Your task to perform on an android device: install app "HBO Max: Stream TV & Movies" Image 0: 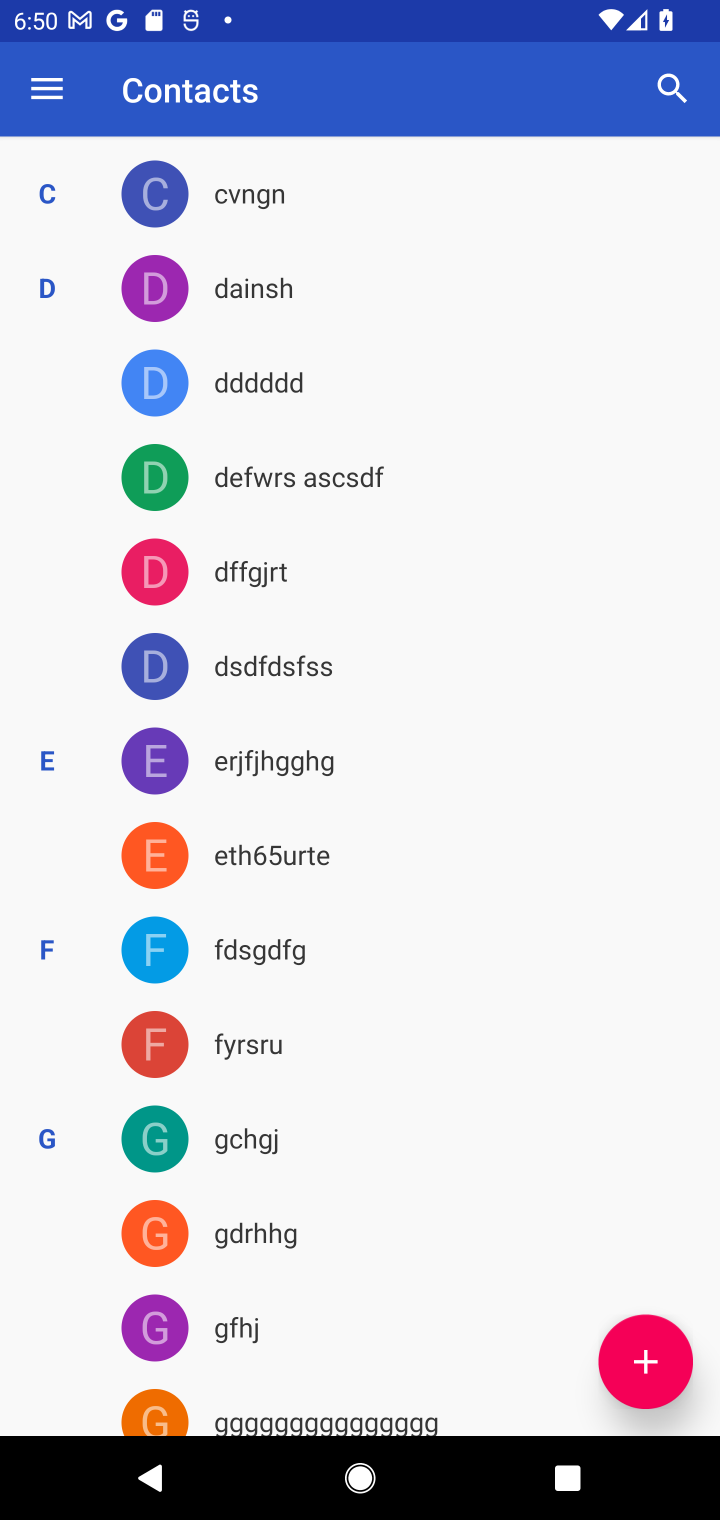
Step 0: press home button
Your task to perform on an android device: install app "HBO Max: Stream TV & Movies" Image 1: 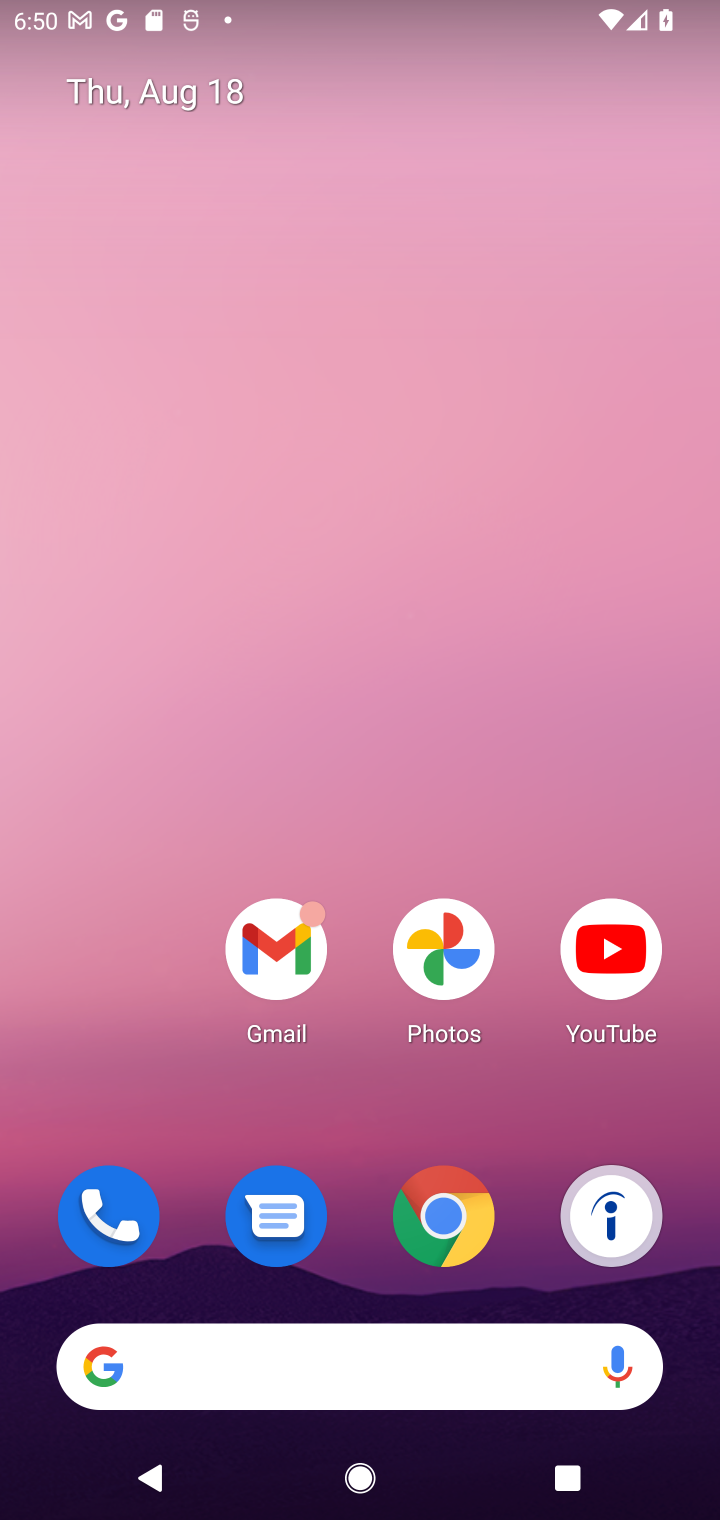
Step 1: drag from (534, 1290) to (472, 381)
Your task to perform on an android device: install app "HBO Max: Stream TV & Movies" Image 2: 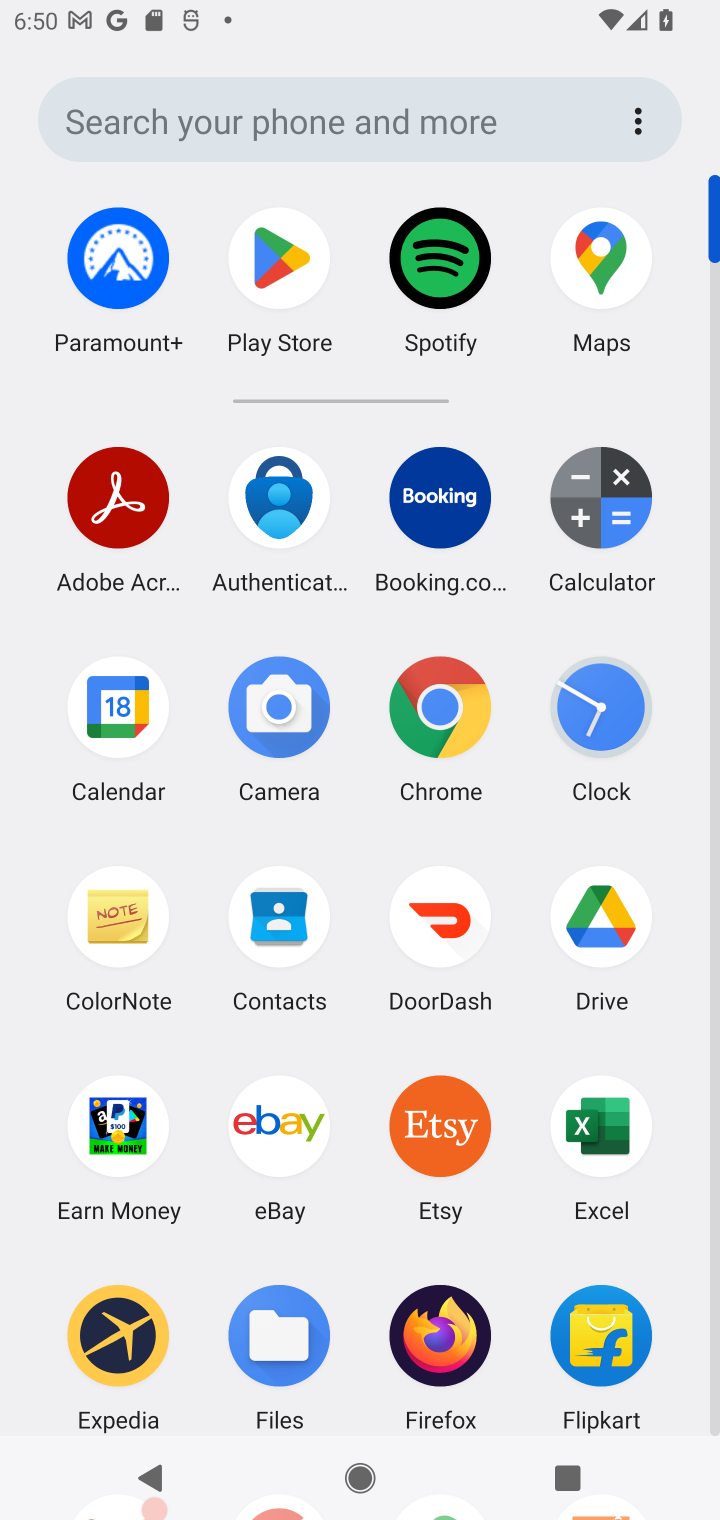
Step 2: drag from (526, 1263) to (530, 522)
Your task to perform on an android device: install app "HBO Max: Stream TV & Movies" Image 3: 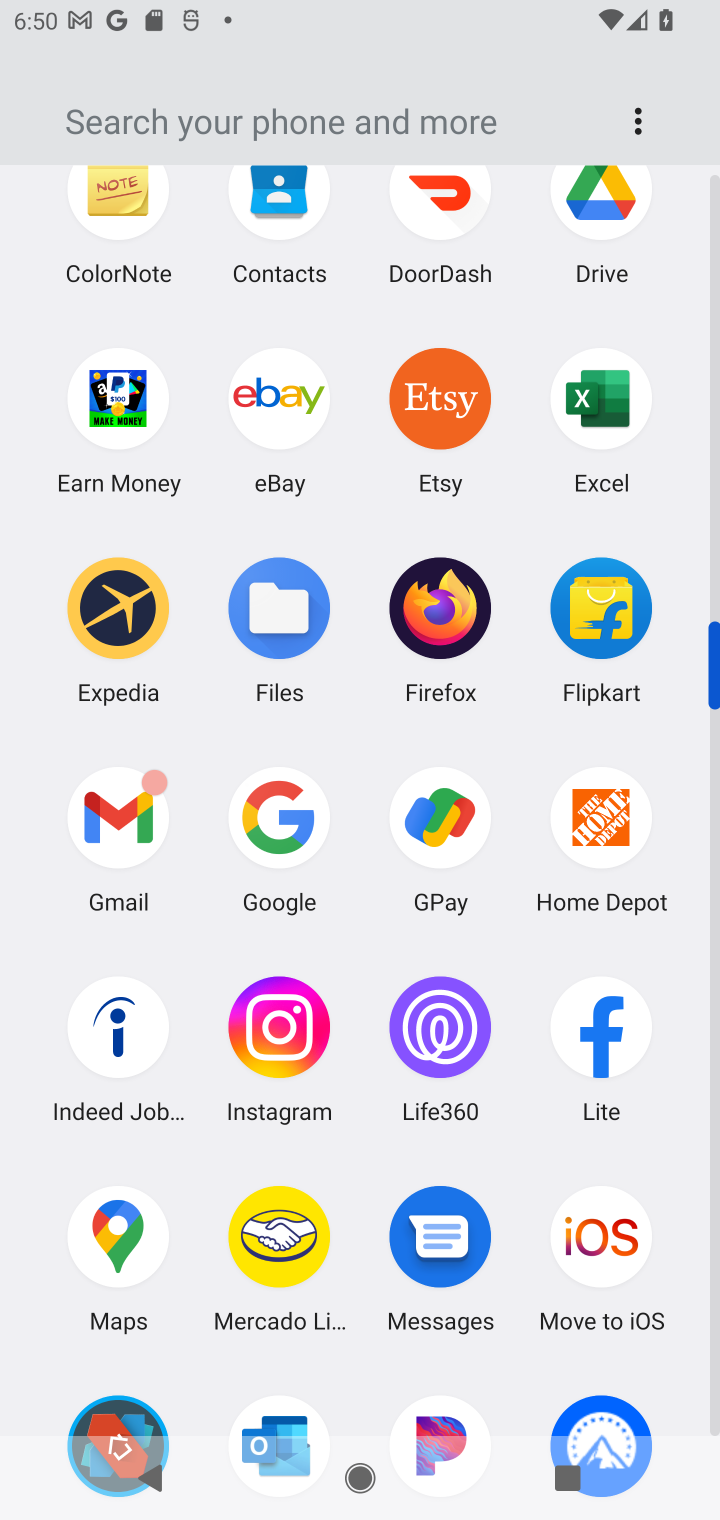
Step 3: drag from (516, 1387) to (520, 728)
Your task to perform on an android device: install app "HBO Max: Stream TV & Movies" Image 4: 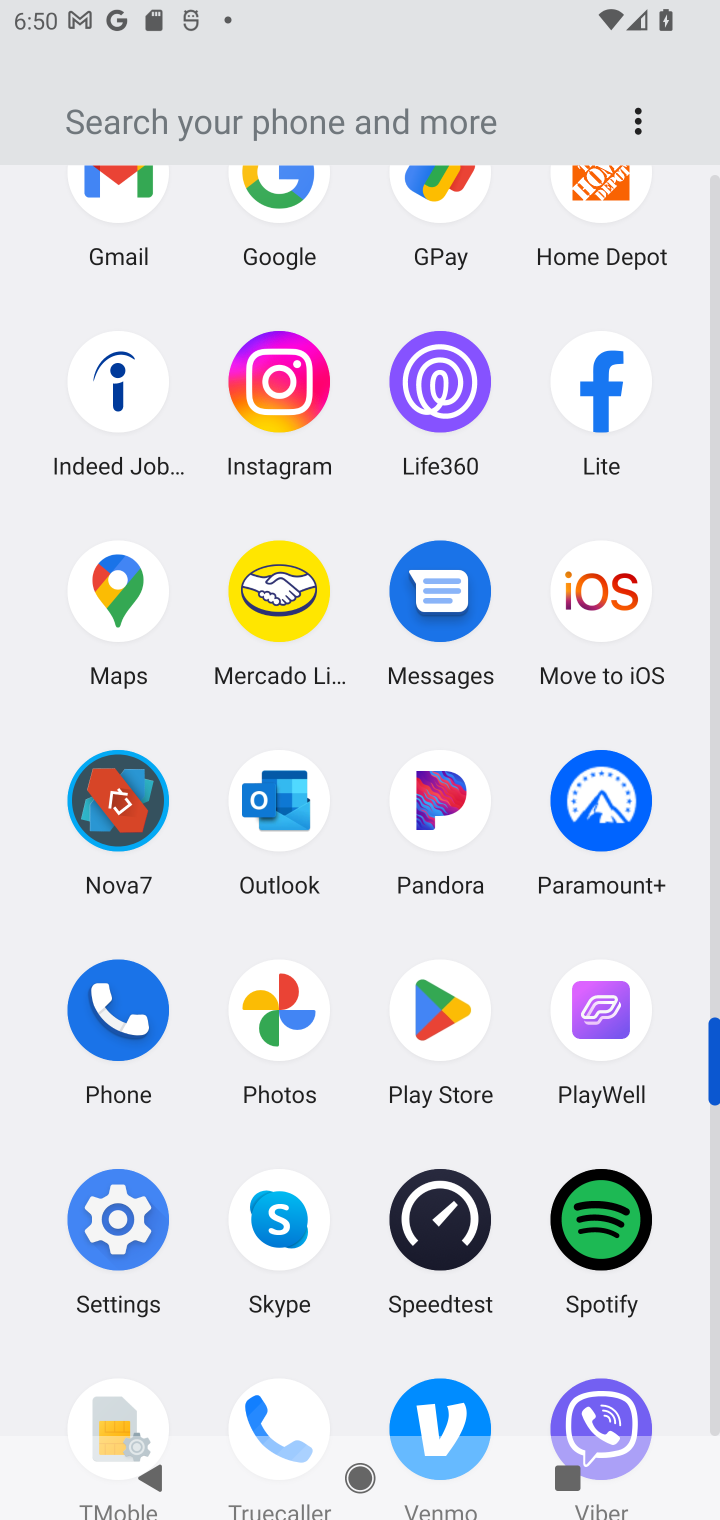
Step 4: click (436, 1009)
Your task to perform on an android device: install app "HBO Max: Stream TV & Movies" Image 5: 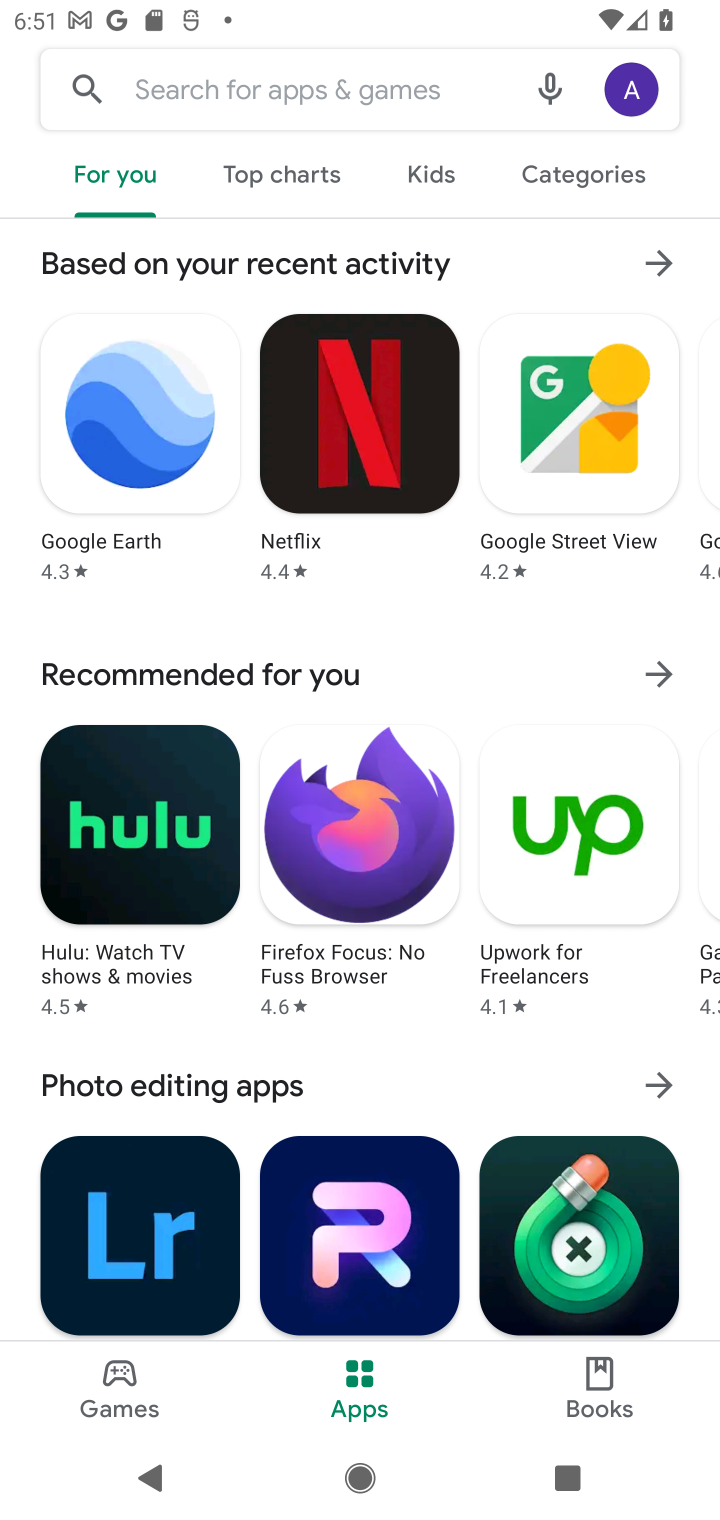
Step 5: click (267, 87)
Your task to perform on an android device: install app "HBO Max: Stream TV & Movies" Image 6: 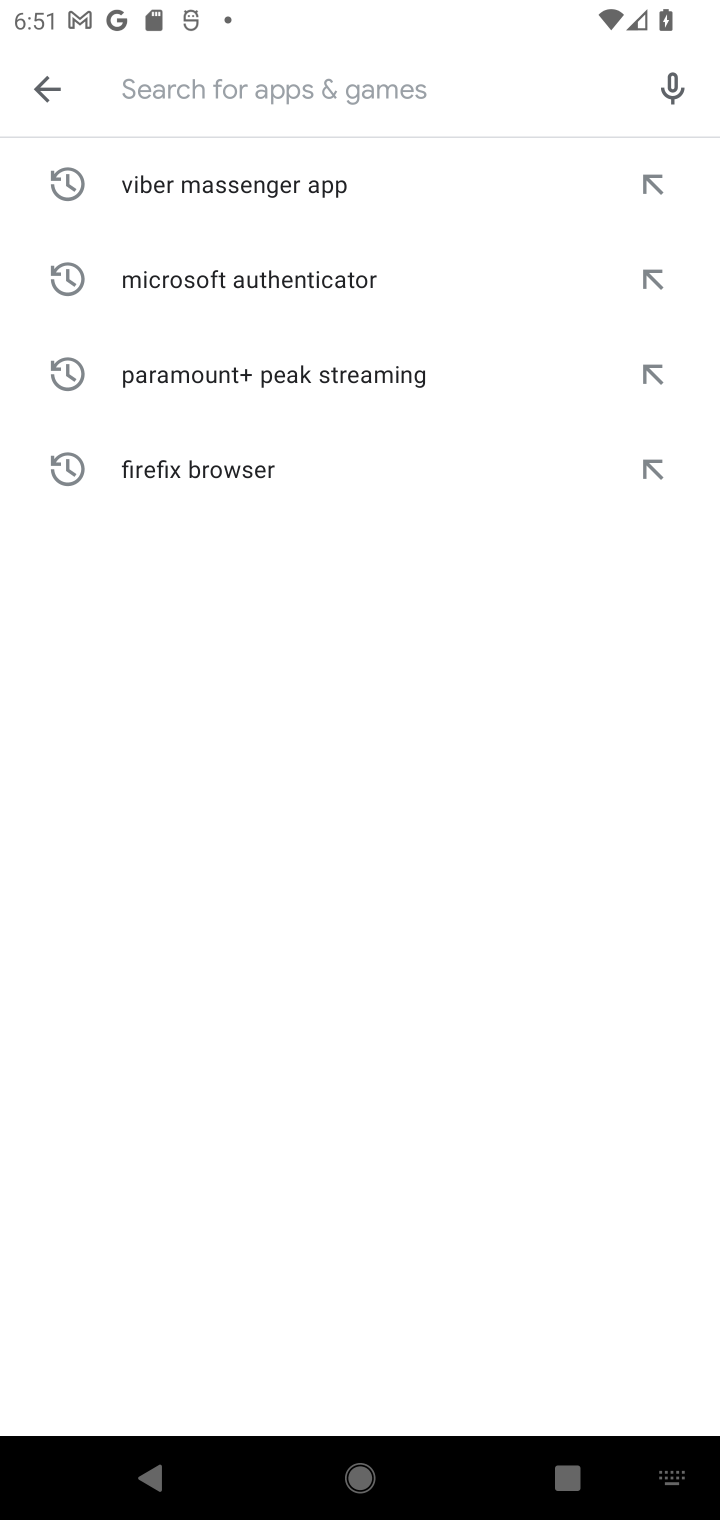
Step 6: type "HBO Max: Stream TV & Movies"
Your task to perform on an android device: install app "HBO Max: Stream TV & Movies" Image 7: 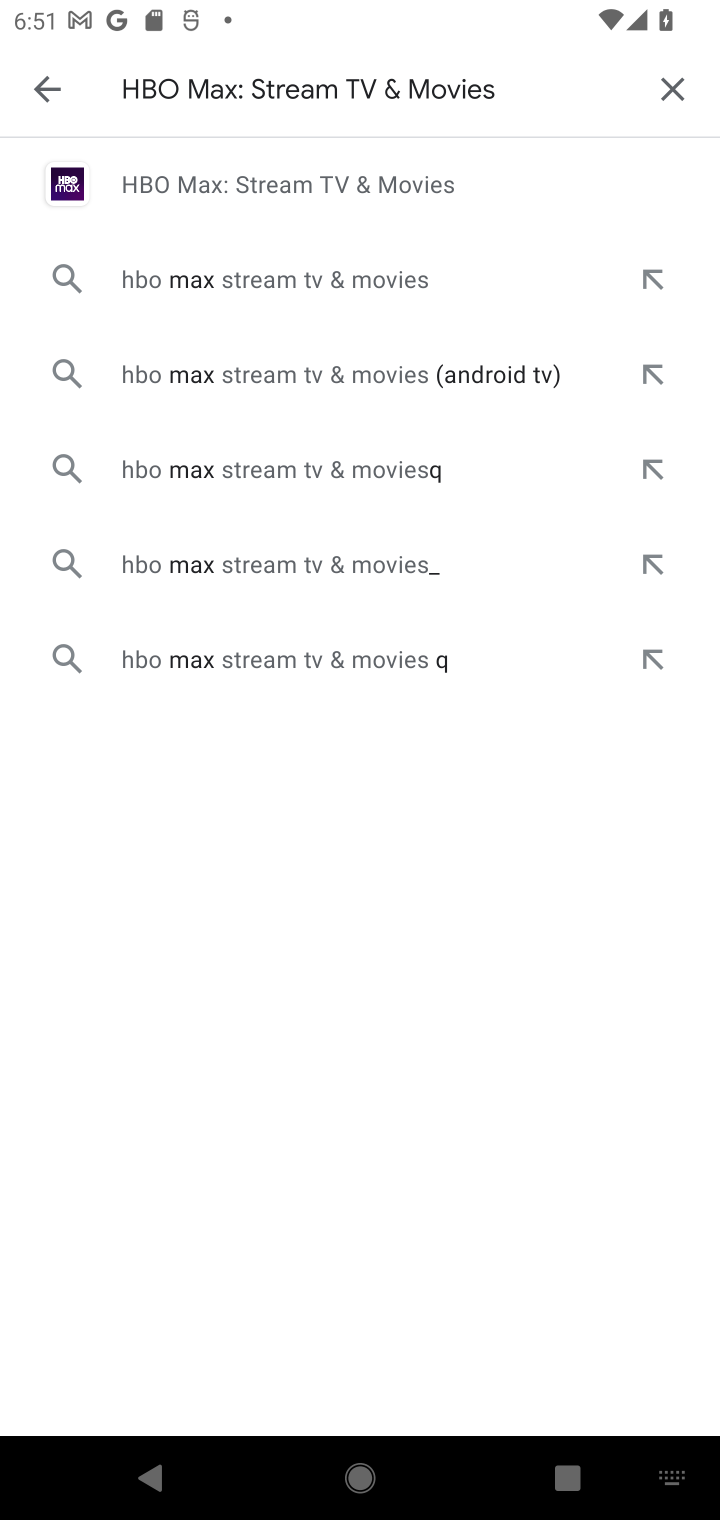
Step 7: click (222, 180)
Your task to perform on an android device: install app "HBO Max: Stream TV & Movies" Image 8: 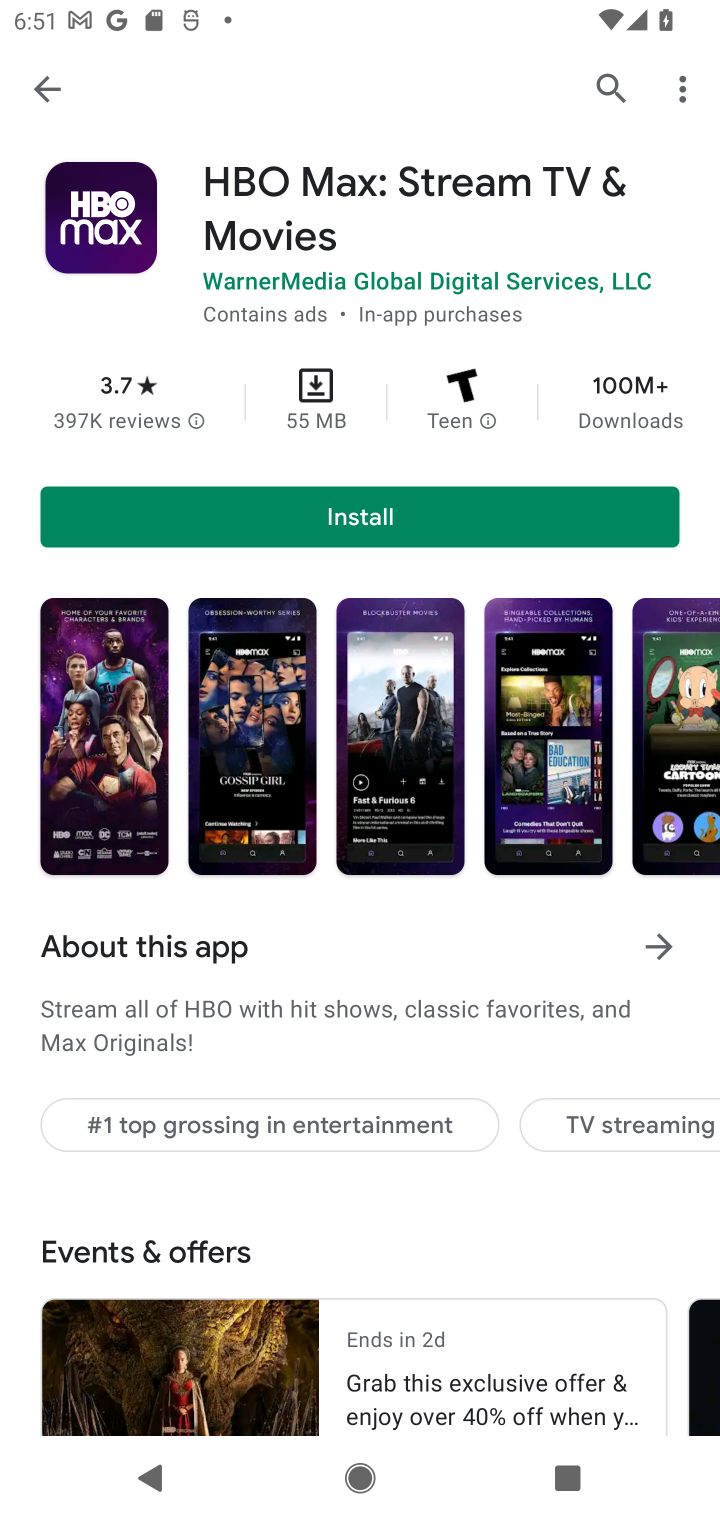
Step 8: click (356, 516)
Your task to perform on an android device: install app "HBO Max: Stream TV & Movies" Image 9: 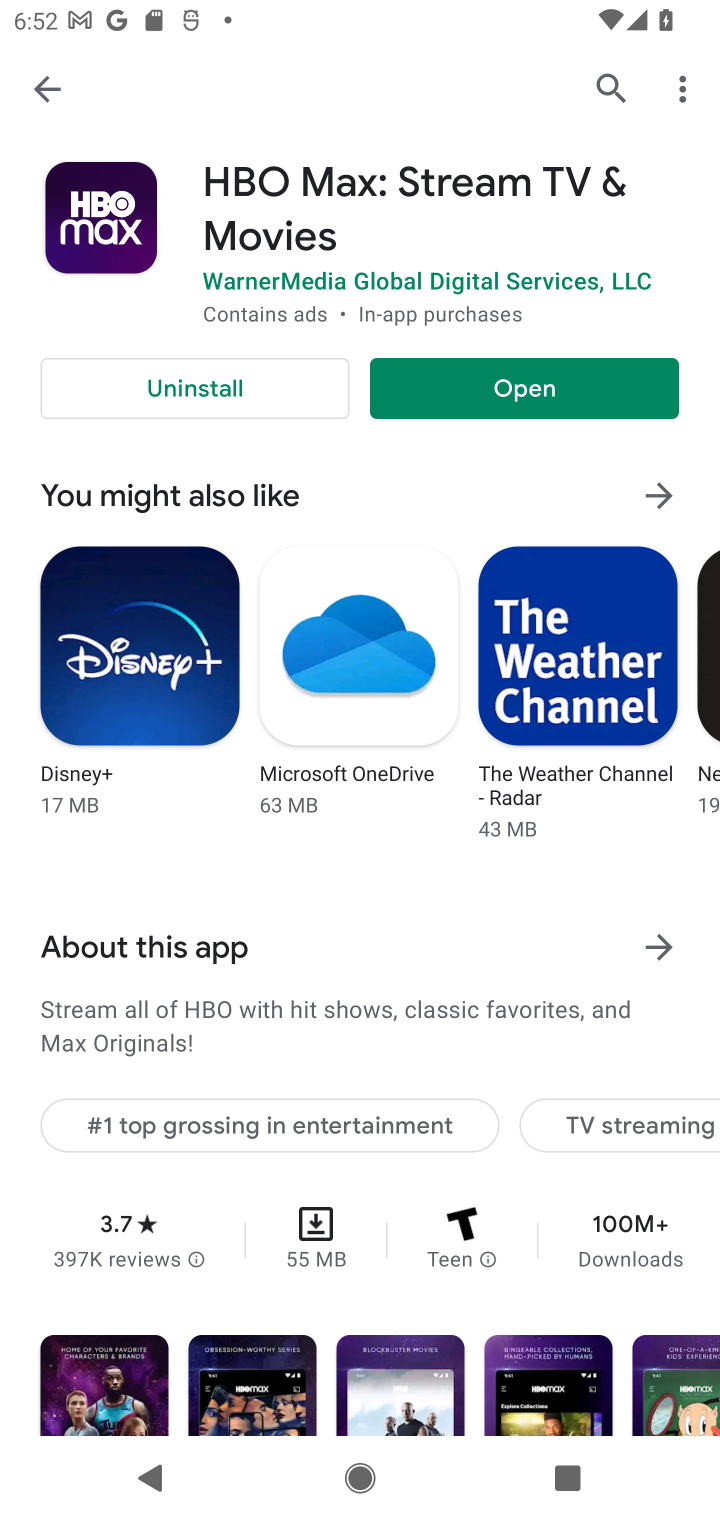
Step 9: click (511, 384)
Your task to perform on an android device: install app "HBO Max: Stream TV & Movies" Image 10: 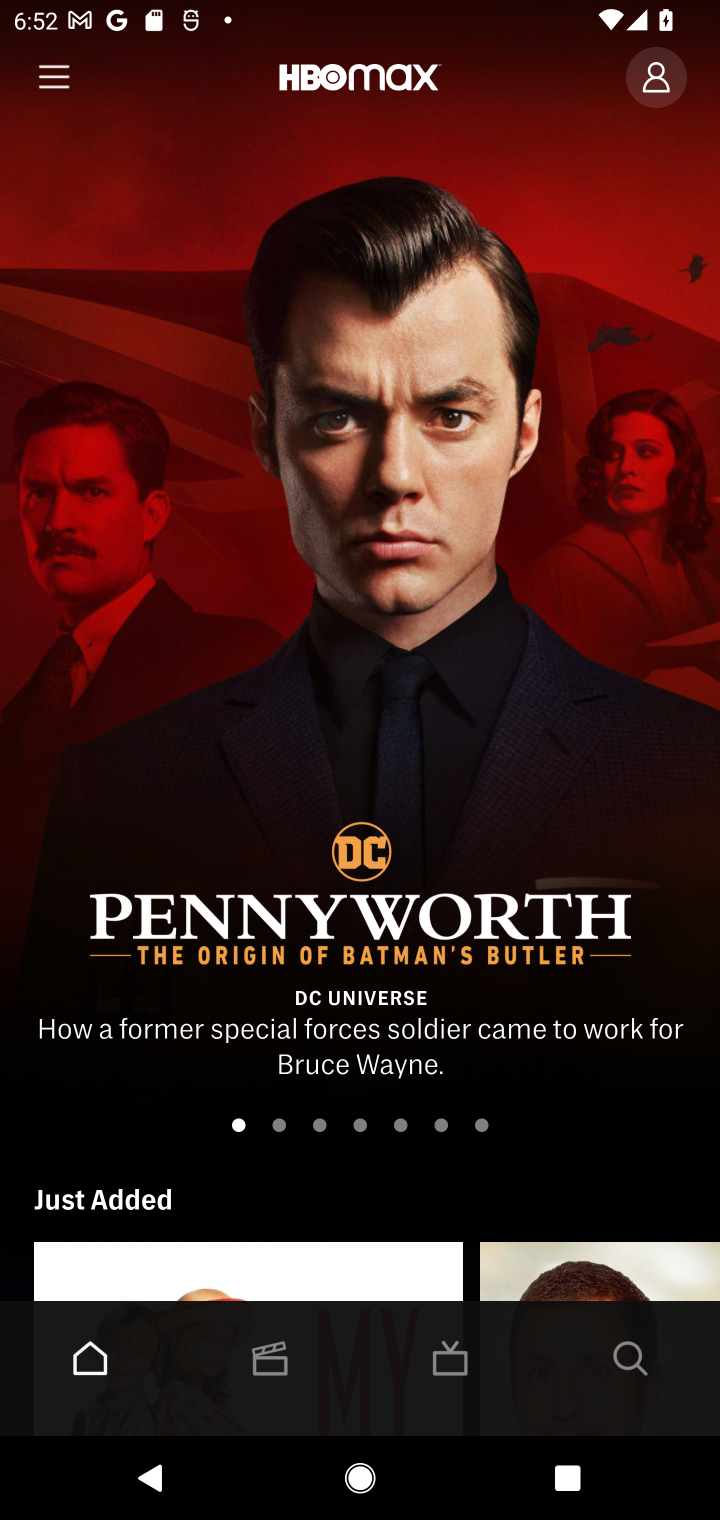
Step 10: task complete